Your task to perform on an android device: Open eBay Image 0: 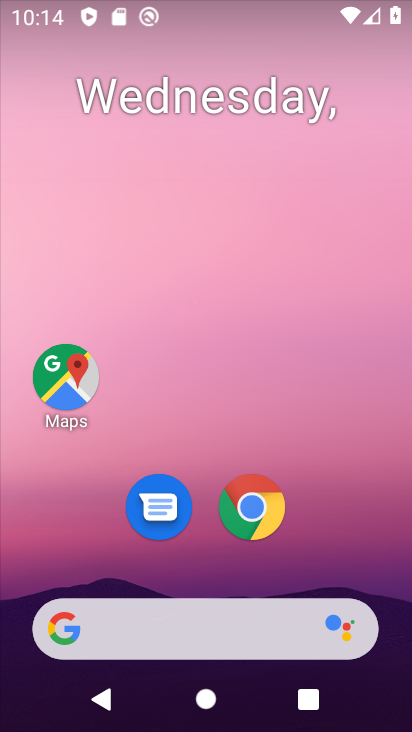
Step 0: drag from (322, 566) to (319, 240)
Your task to perform on an android device: Open eBay Image 1: 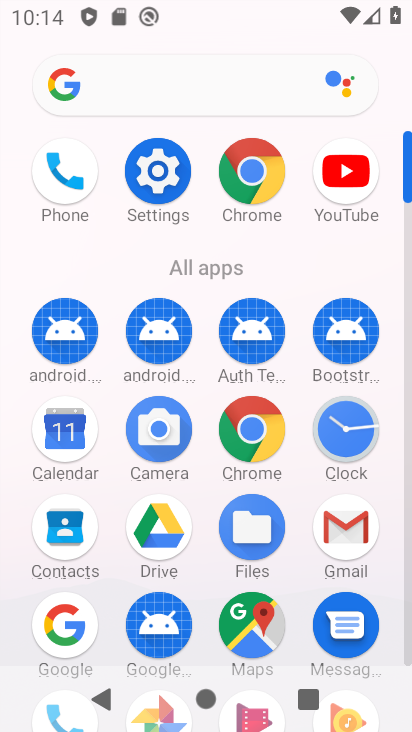
Step 1: click (245, 155)
Your task to perform on an android device: Open eBay Image 2: 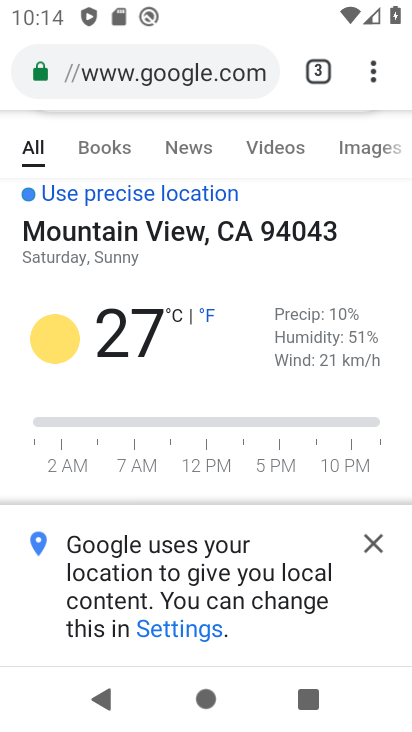
Step 2: click (347, 62)
Your task to perform on an android device: Open eBay Image 3: 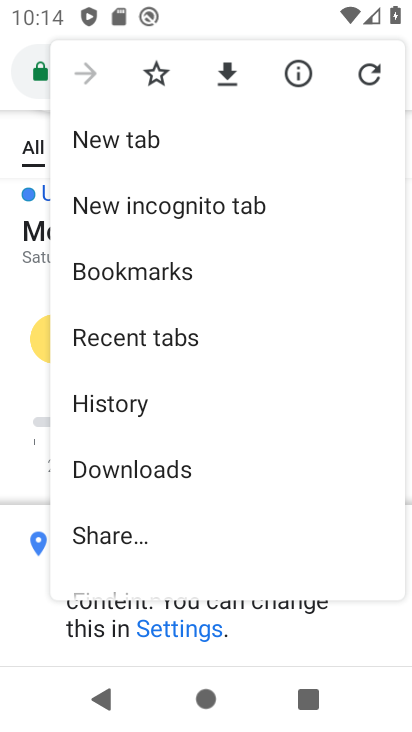
Step 3: click (160, 134)
Your task to perform on an android device: Open eBay Image 4: 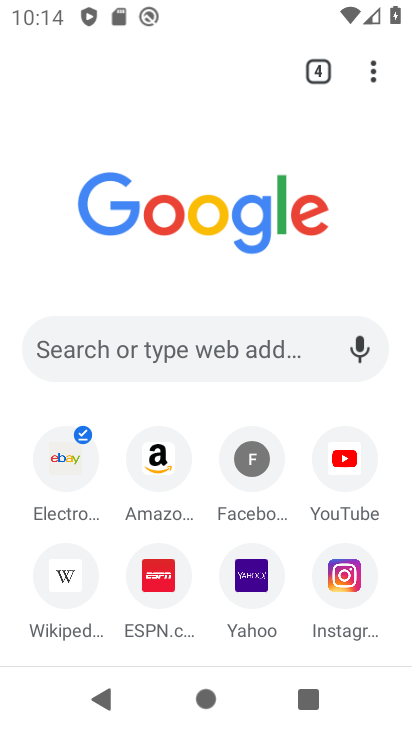
Step 4: click (48, 460)
Your task to perform on an android device: Open eBay Image 5: 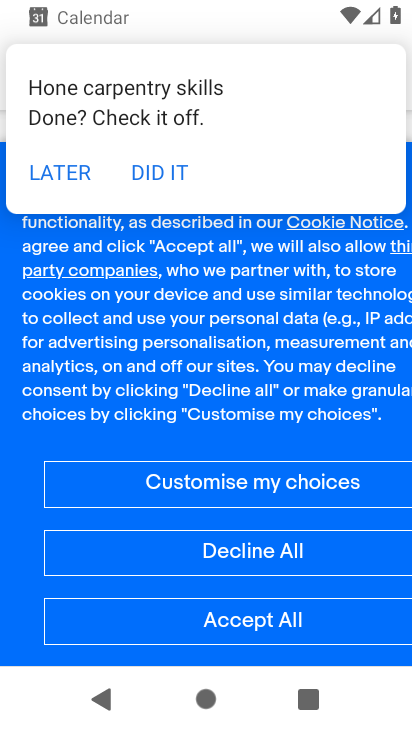
Step 5: click (44, 164)
Your task to perform on an android device: Open eBay Image 6: 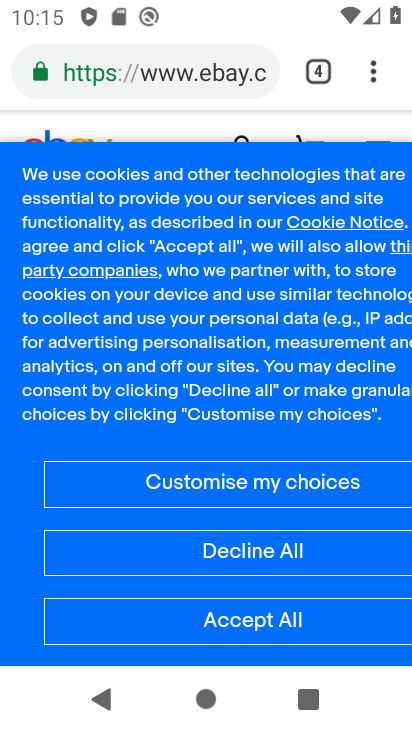
Step 6: task complete